Your task to perform on an android device: Go to eBay Image 0: 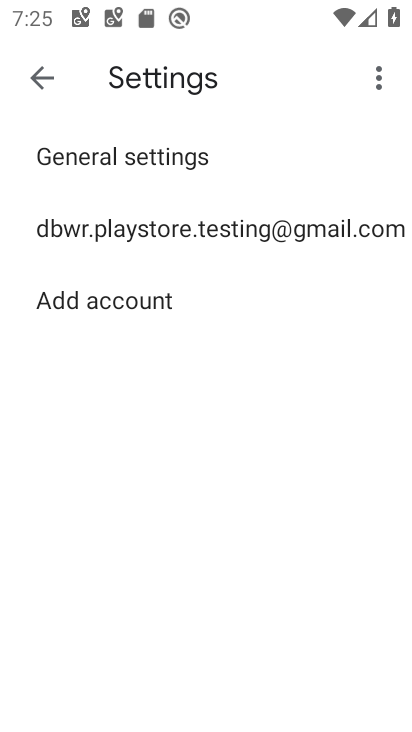
Step 0: press home button
Your task to perform on an android device: Go to eBay Image 1: 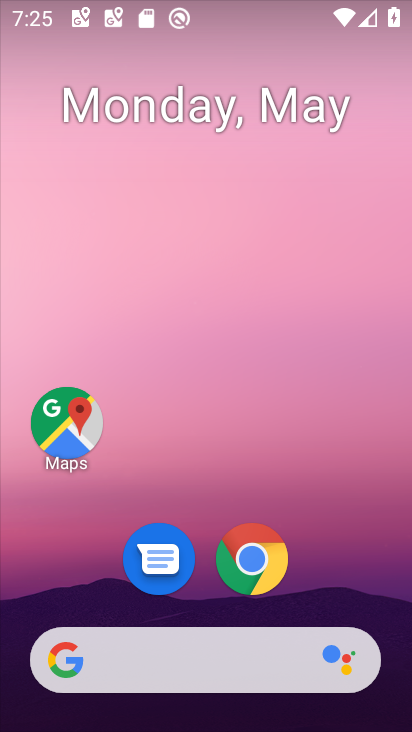
Step 1: click (210, 641)
Your task to perform on an android device: Go to eBay Image 2: 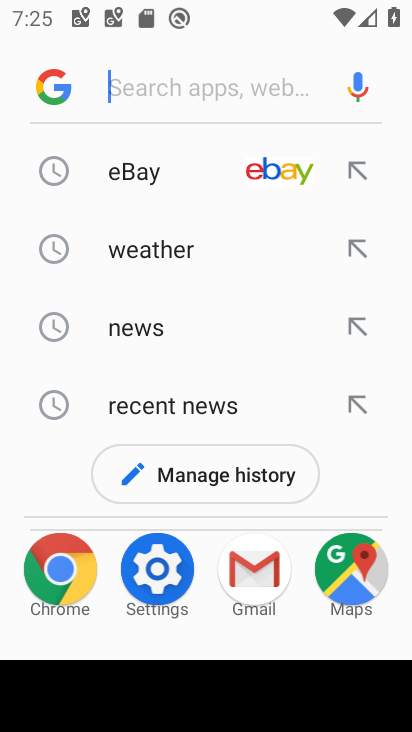
Step 2: click (164, 171)
Your task to perform on an android device: Go to eBay Image 3: 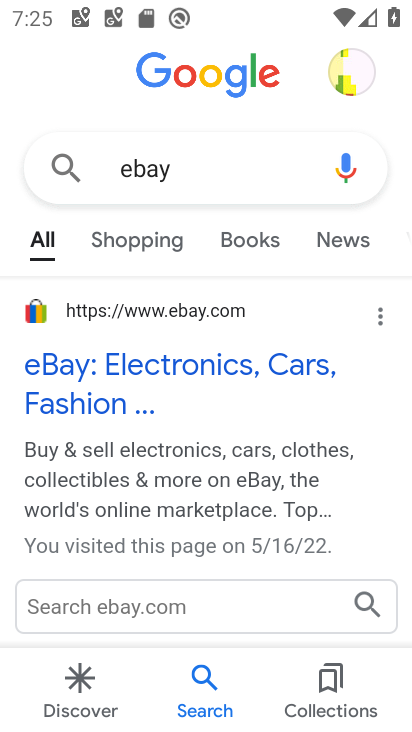
Step 3: task complete